Your task to perform on an android device: see sites visited before in the chrome app Image 0: 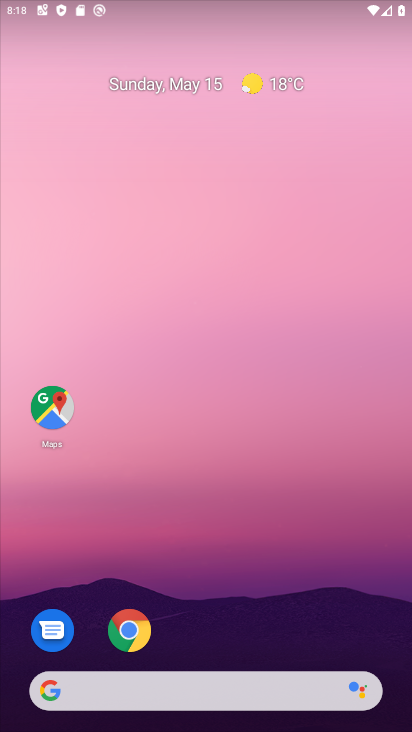
Step 0: drag from (217, 549) to (12, 42)
Your task to perform on an android device: see sites visited before in the chrome app Image 1: 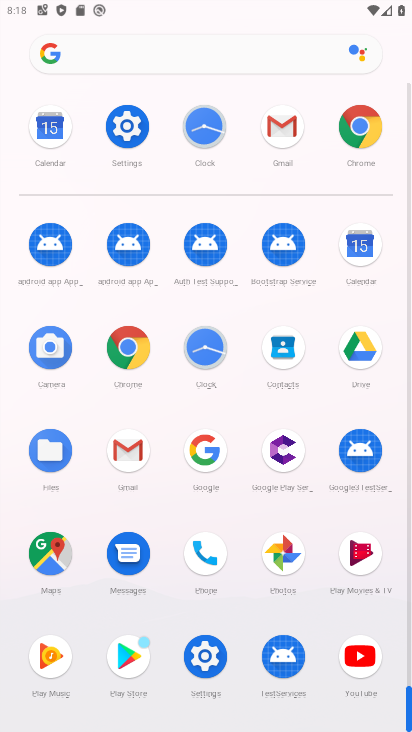
Step 1: drag from (241, 627) to (288, 297)
Your task to perform on an android device: see sites visited before in the chrome app Image 2: 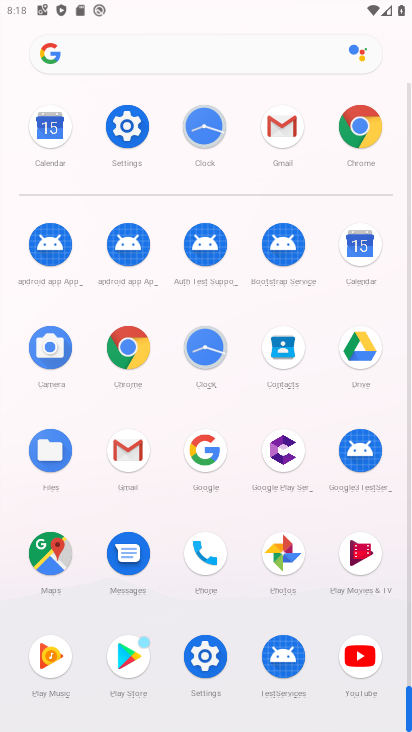
Step 2: click (125, 344)
Your task to perform on an android device: see sites visited before in the chrome app Image 3: 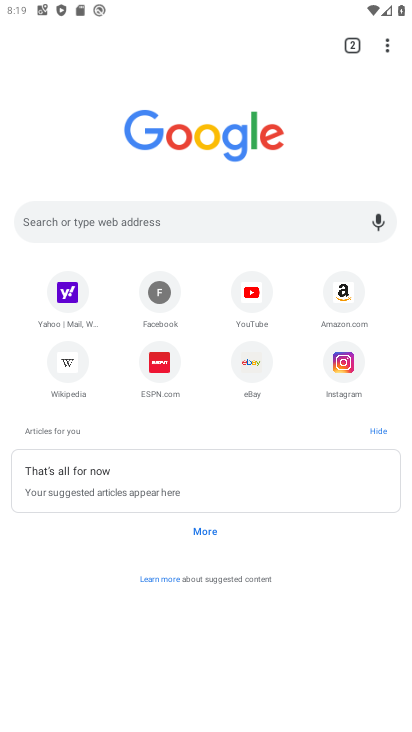
Step 3: task complete